Your task to perform on an android device: turn on showing notifications on the lock screen Image 0: 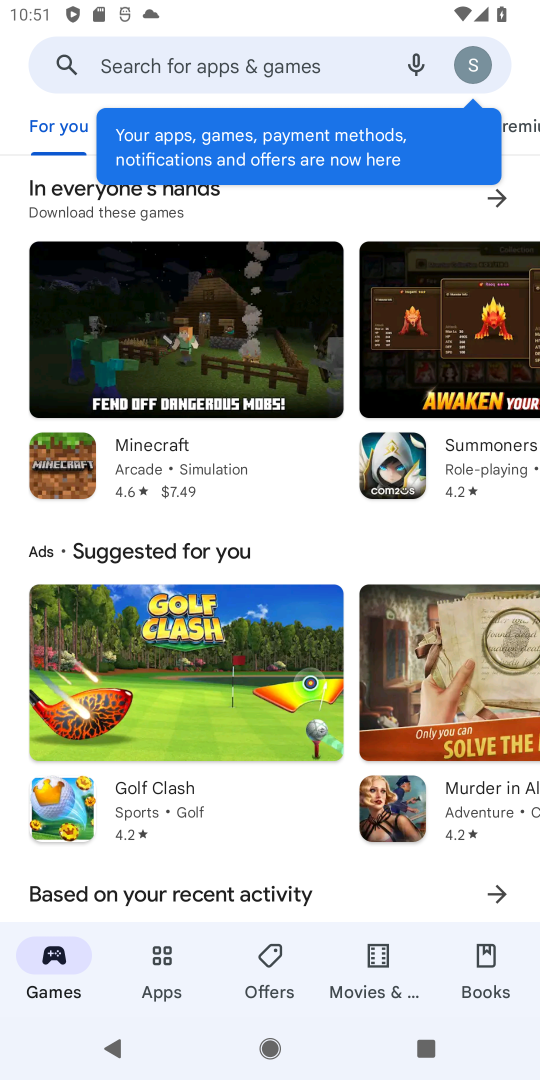
Step 0: press home button
Your task to perform on an android device: turn on showing notifications on the lock screen Image 1: 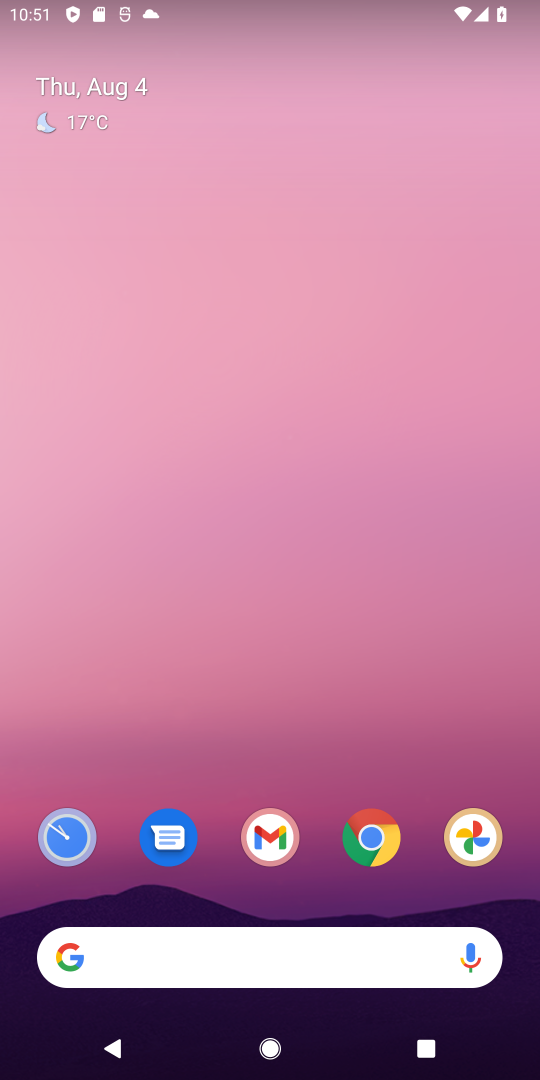
Step 1: drag from (430, 891) to (234, 46)
Your task to perform on an android device: turn on showing notifications on the lock screen Image 2: 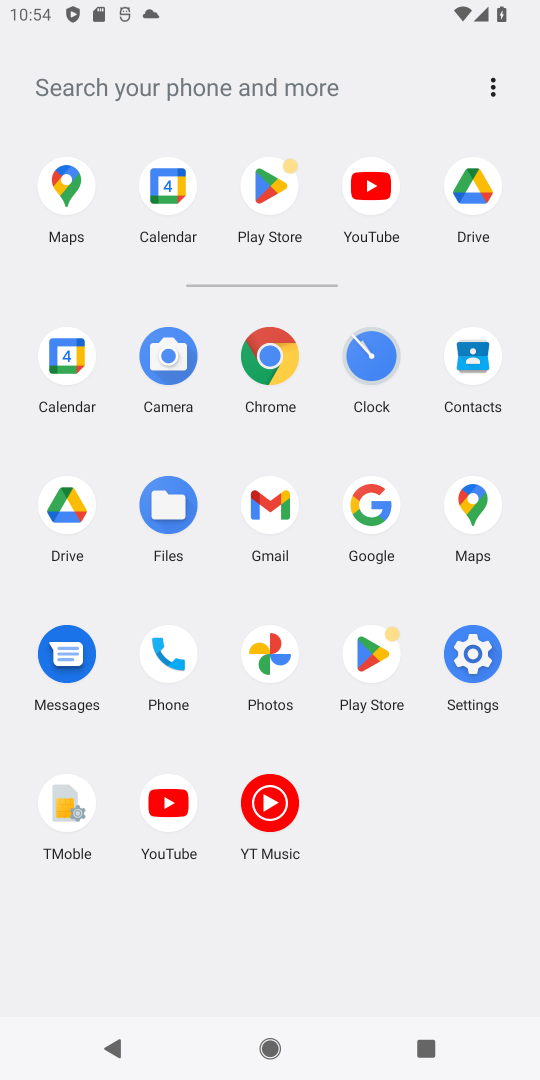
Step 2: click (459, 649)
Your task to perform on an android device: turn on showing notifications on the lock screen Image 3: 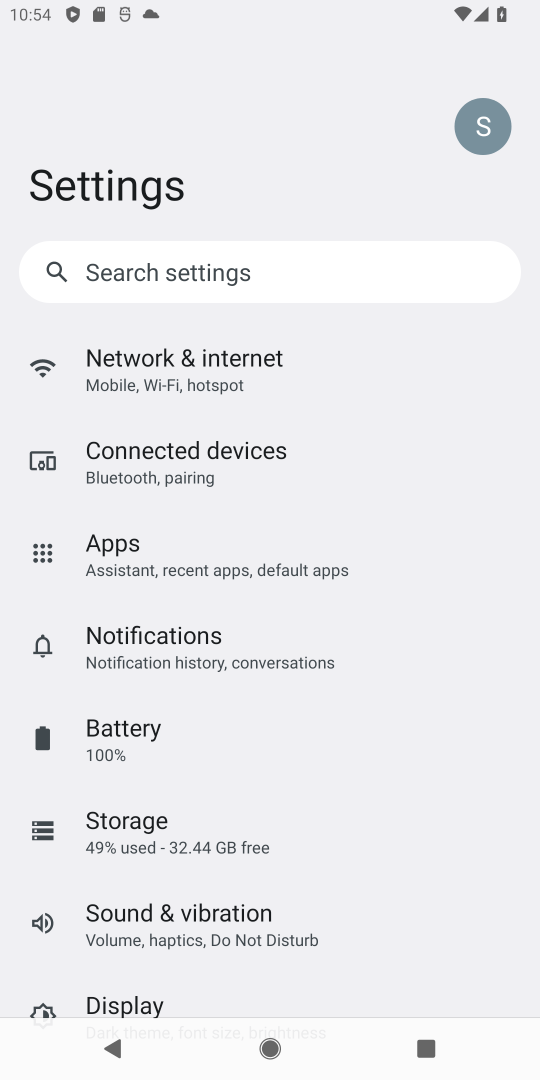
Step 3: click (202, 642)
Your task to perform on an android device: turn on showing notifications on the lock screen Image 4: 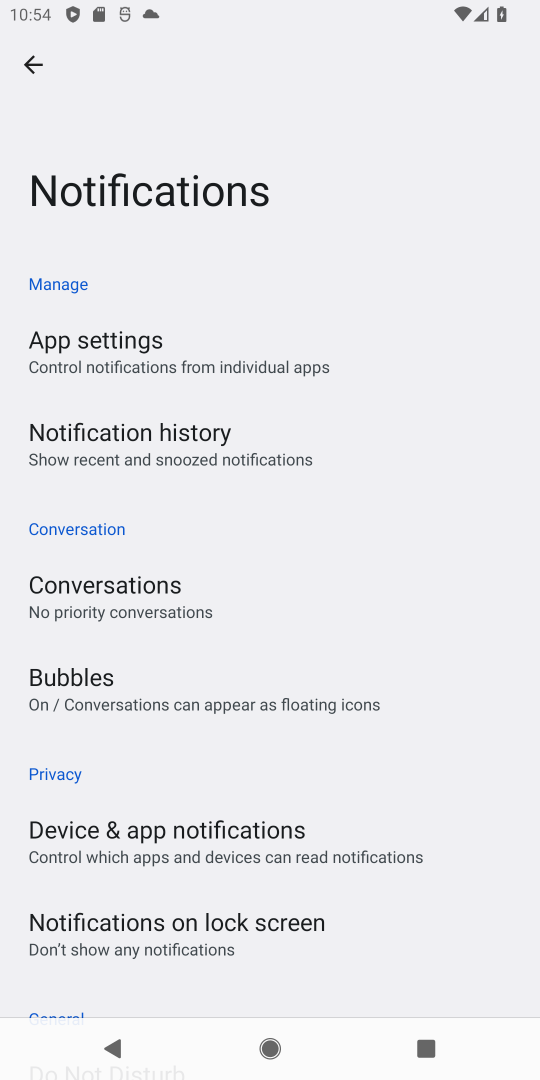
Step 4: click (270, 949)
Your task to perform on an android device: turn on showing notifications on the lock screen Image 5: 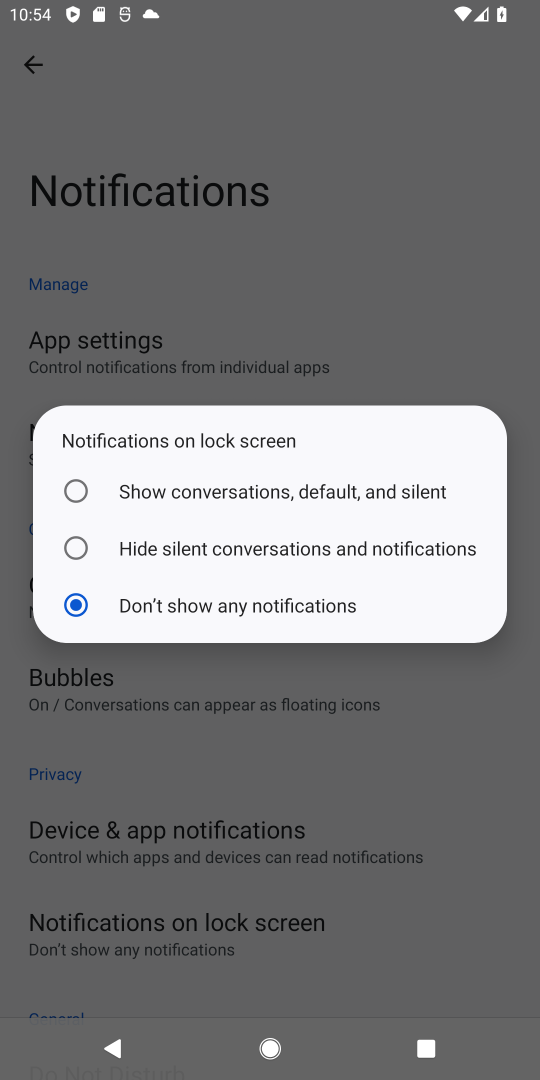
Step 5: click (100, 490)
Your task to perform on an android device: turn on showing notifications on the lock screen Image 6: 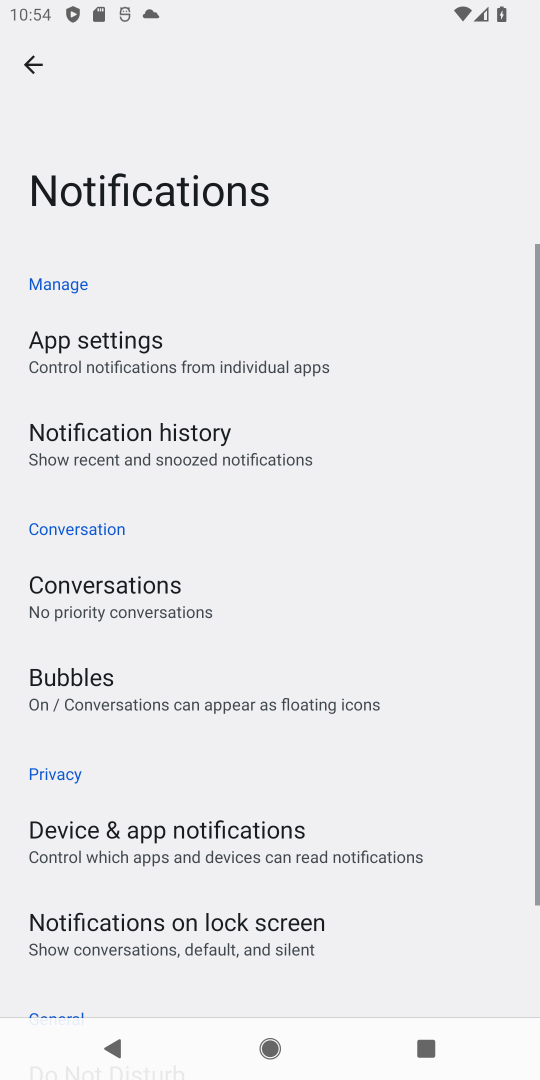
Step 6: task complete